Your task to perform on an android device: Play the last video I watched on Youtube Image 0: 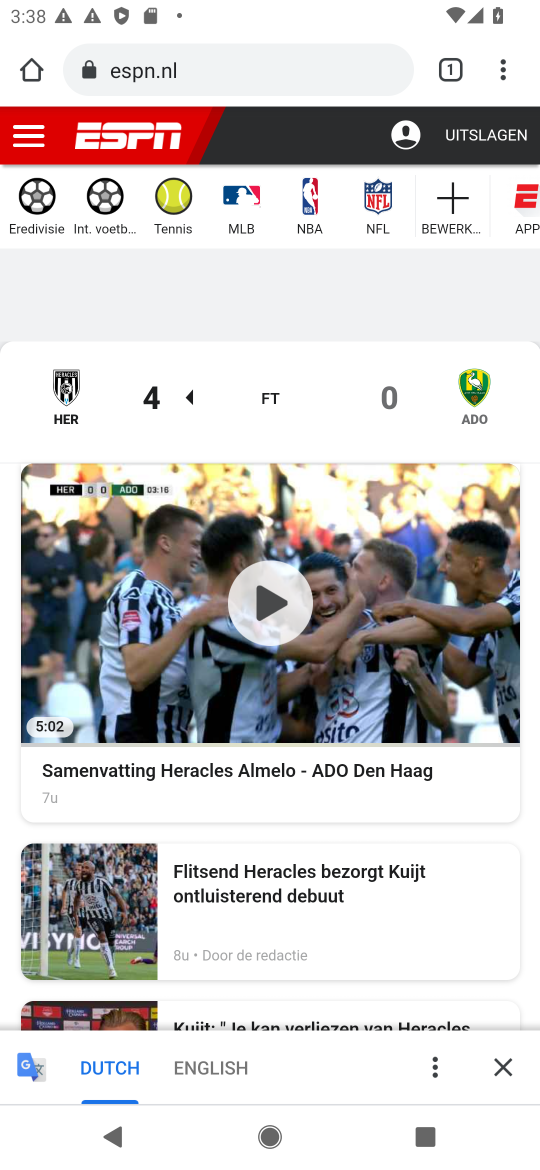
Step 0: press home button
Your task to perform on an android device: Play the last video I watched on Youtube Image 1: 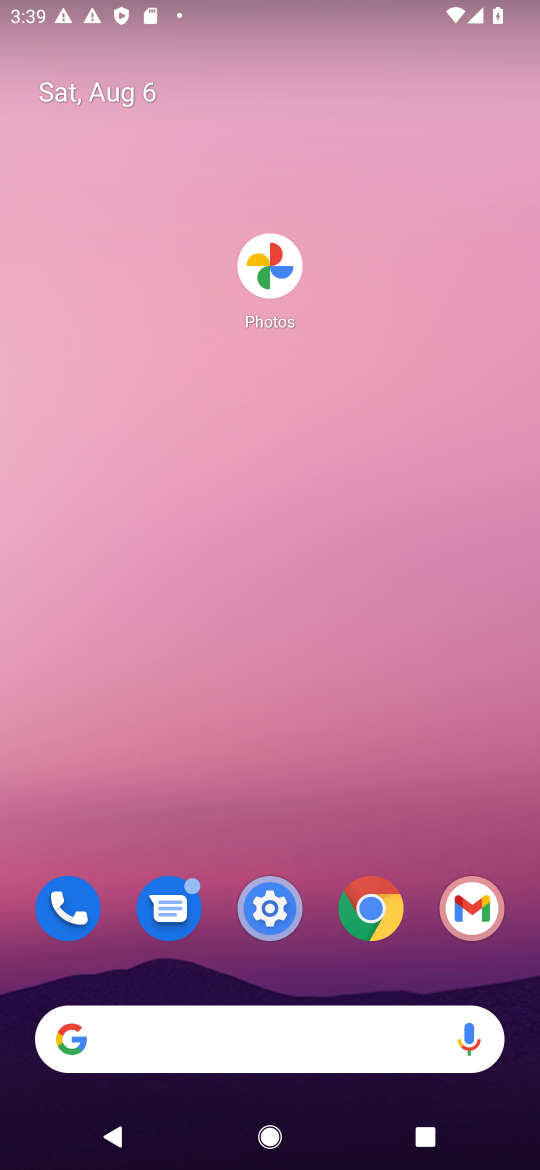
Step 1: drag from (285, 966) to (320, 288)
Your task to perform on an android device: Play the last video I watched on Youtube Image 2: 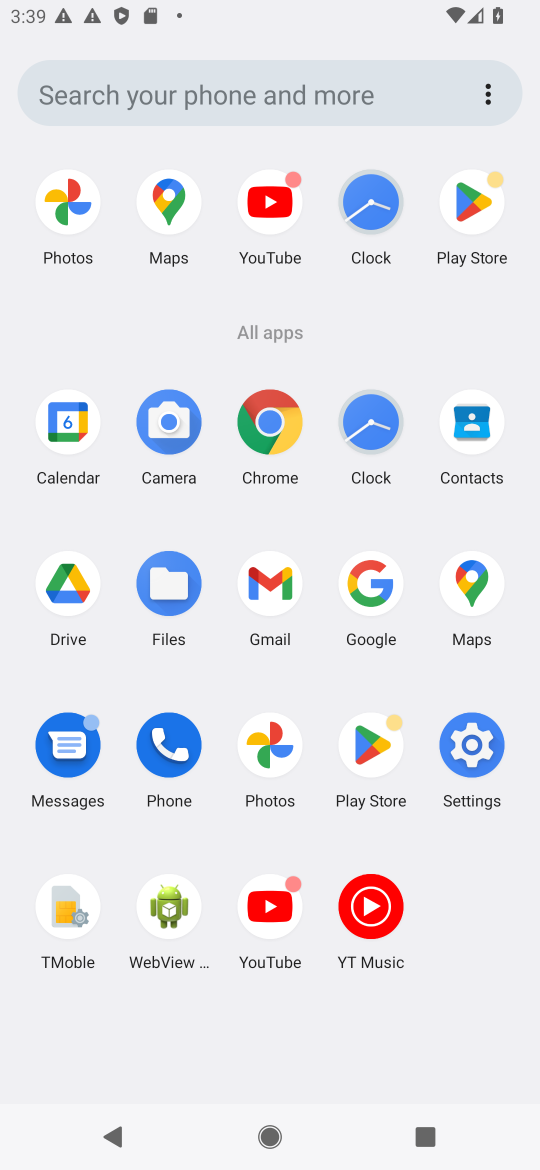
Step 2: click (274, 935)
Your task to perform on an android device: Play the last video I watched on Youtube Image 3: 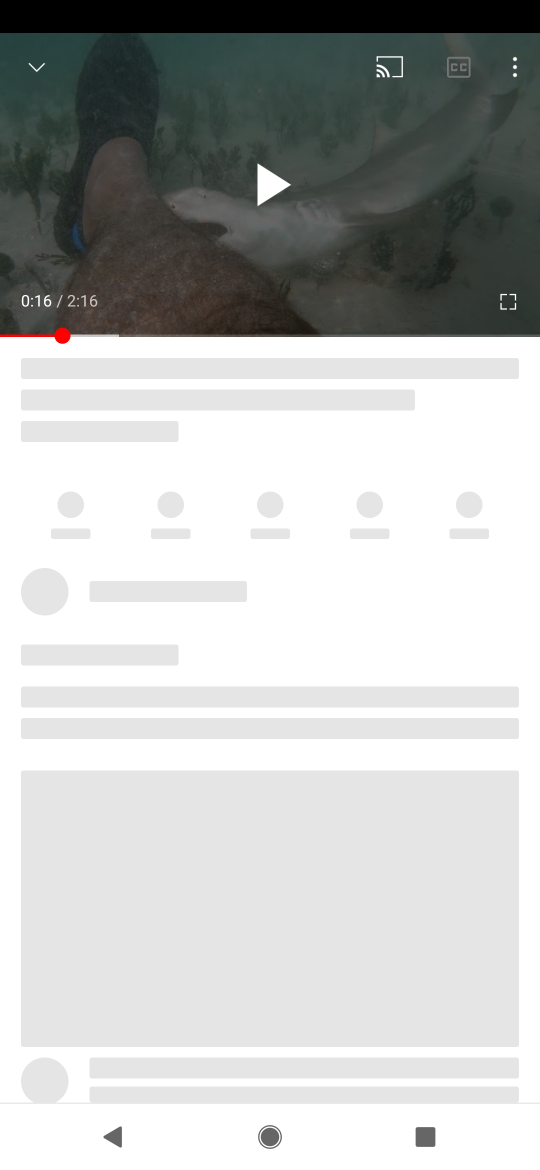
Step 3: click (39, 67)
Your task to perform on an android device: Play the last video I watched on Youtube Image 4: 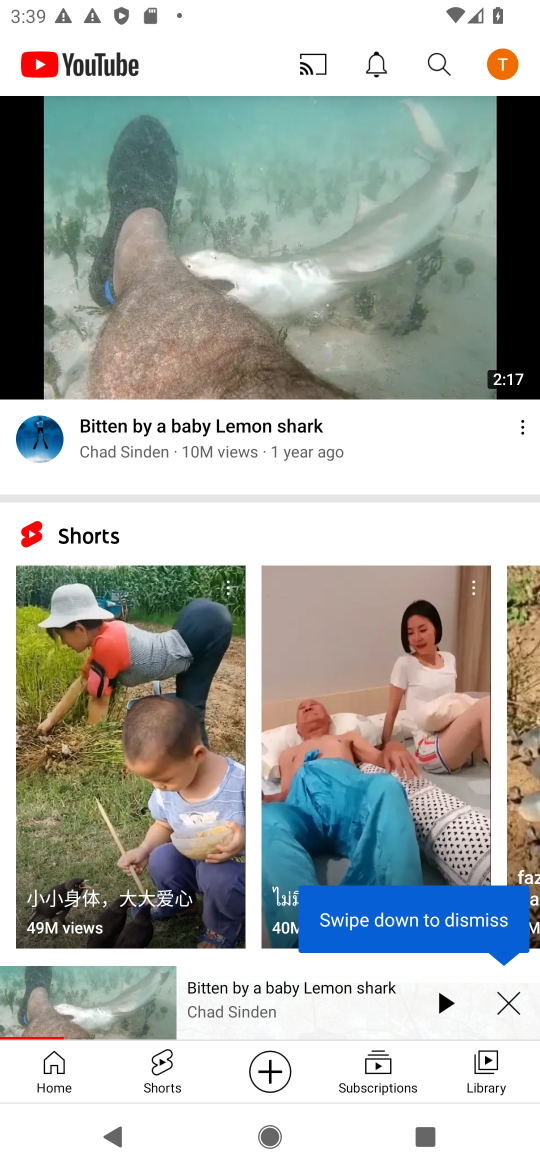
Step 4: click (510, 1009)
Your task to perform on an android device: Play the last video I watched on Youtube Image 5: 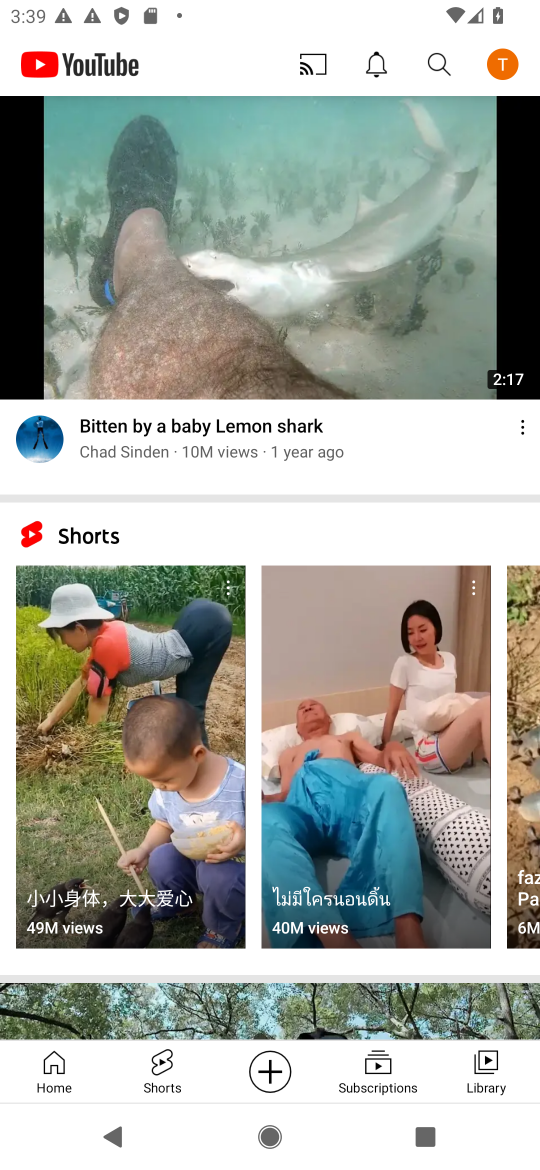
Step 5: click (484, 1079)
Your task to perform on an android device: Play the last video I watched on Youtube Image 6: 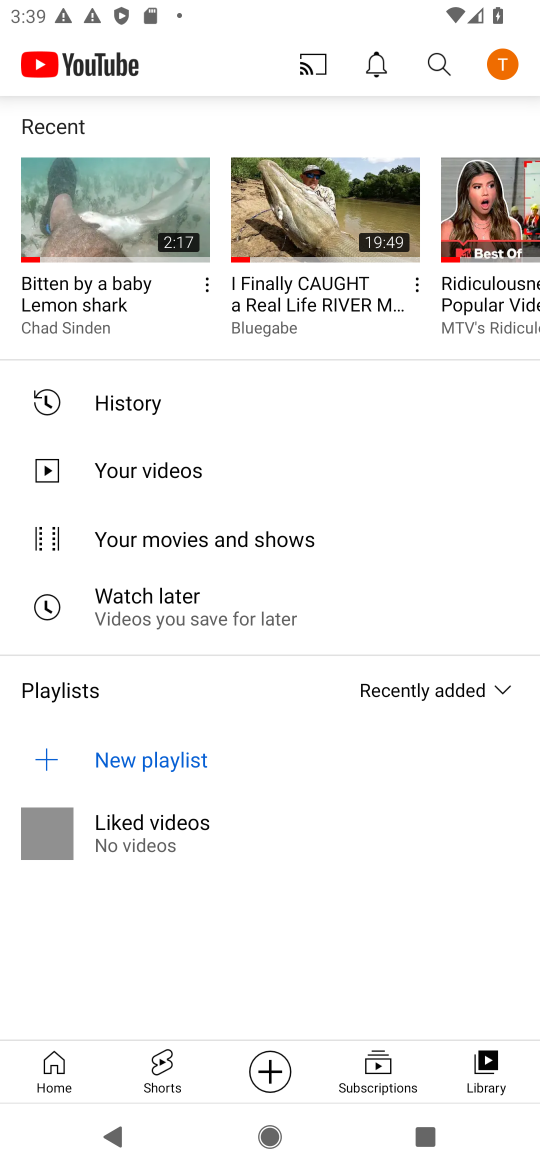
Step 6: click (81, 233)
Your task to perform on an android device: Play the last video I watched on Youtube Image 7: 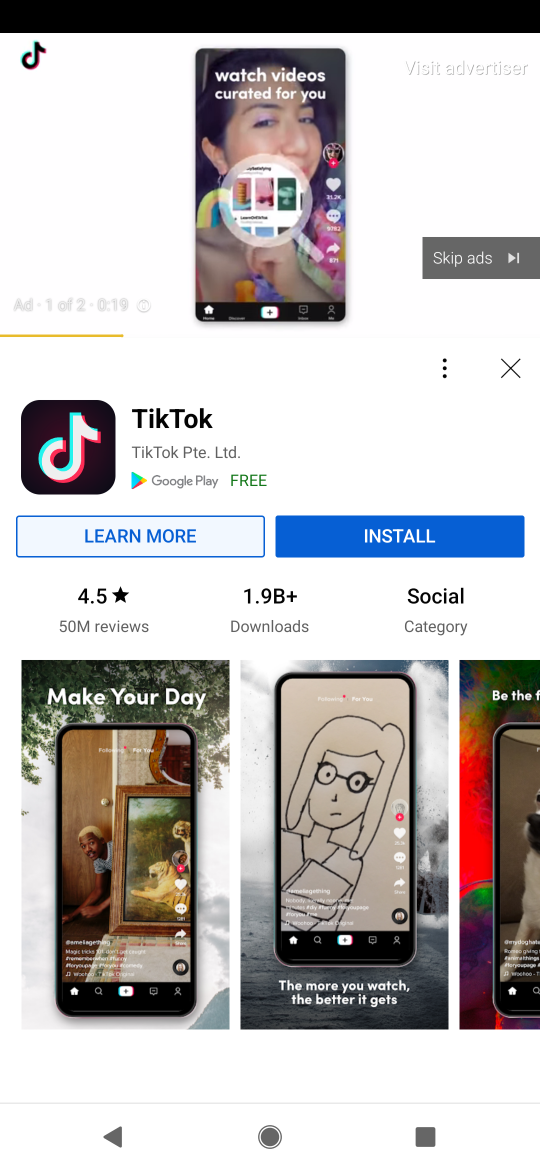
Step 7: task complete